Your task to perform on an android device: Show me popular games on the Play Store Image 0: 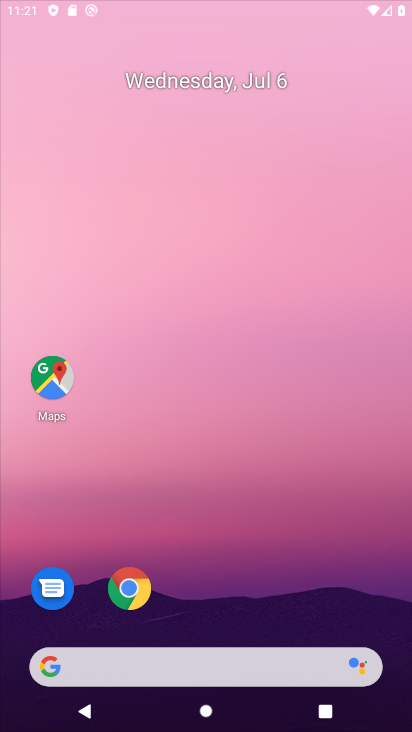
Step 0: drag from (227, 608) to (285, 166)
Your task to perform on an android device: Show me popular games on the Play Store Image 1: 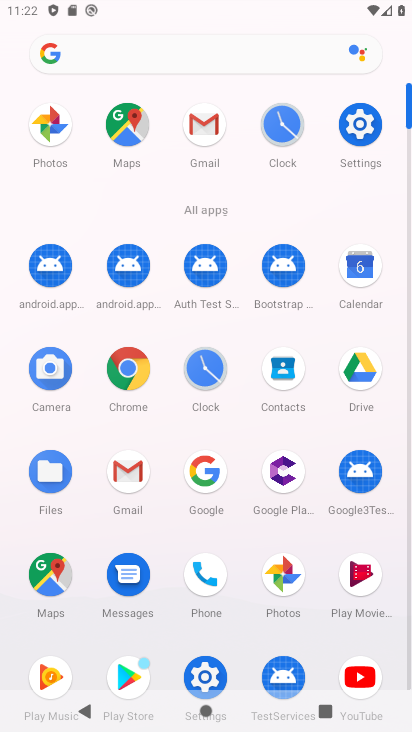
Step 1: drag from (182, 514) to (203, 296)
Your task to perform on an android device: Show me popular games on the Play Store Image 2: 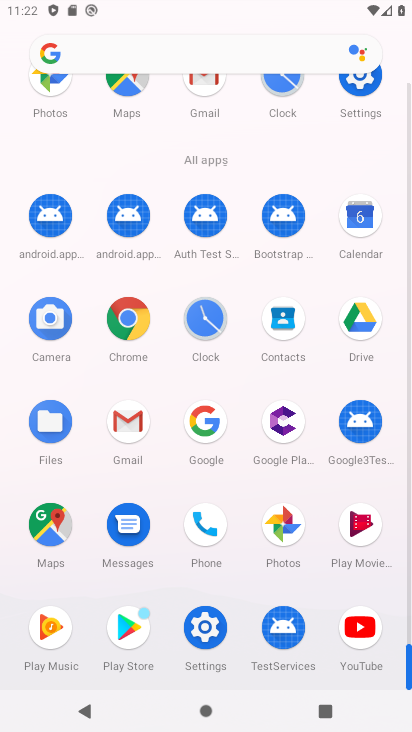
Step 2: click (146, 637)
Your task to perform on an android device: Show me popular games on the Play Store Image 3: 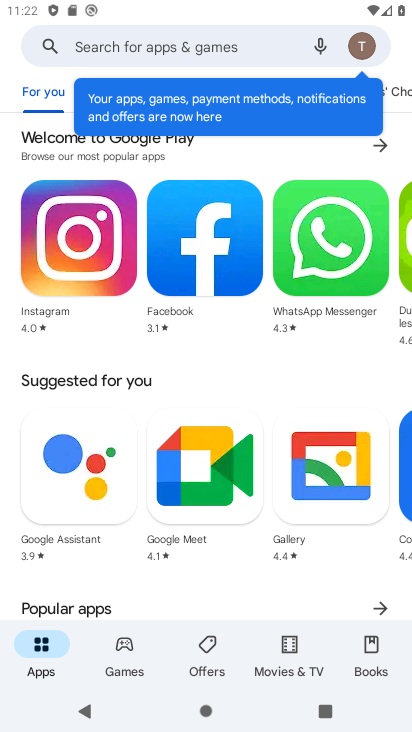
Step 3: task complete